Your task to perform on an android device: toggle priority inbox in the gmail app Image 0: 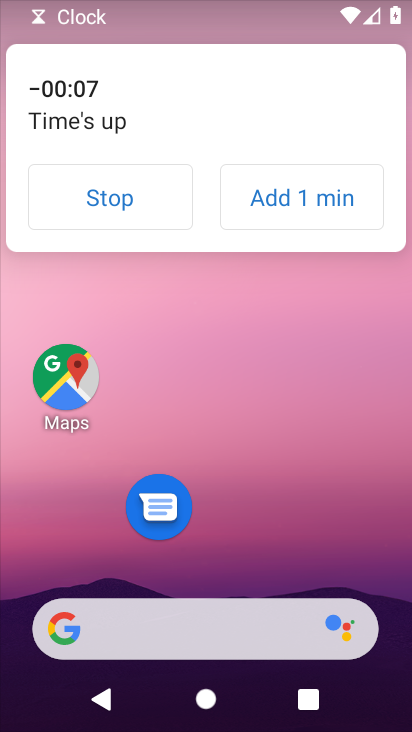
Step 0: click (148, 203)
Your task to perform on an android device: toggle priority inbox in the gmail app Image 1: 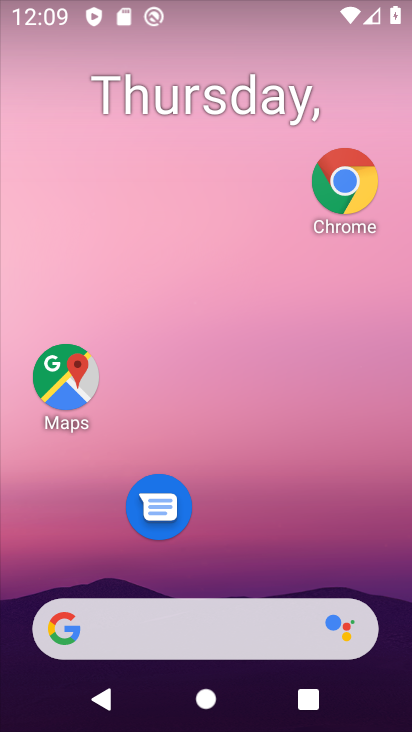
Step 1: drag from (116, 565) to (189, 200)
Your task to perform on an android device: toggle priority inbox in the gmail app Image 2: 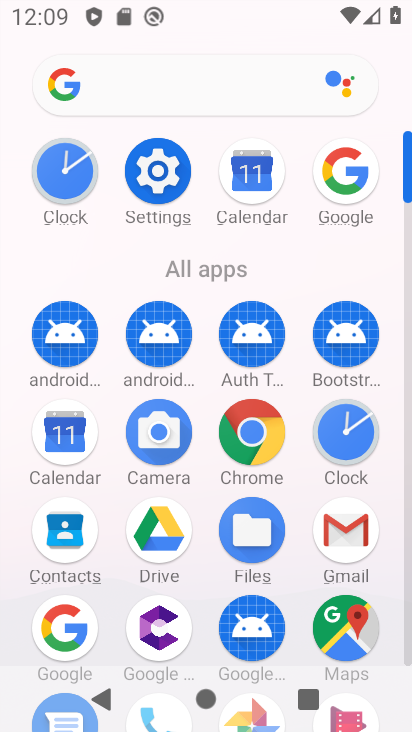
Step 2: drag from (148, 543) to (171, 364)
Your task to perform on an android device: toggle priority inbox in the gmail app Image 3: 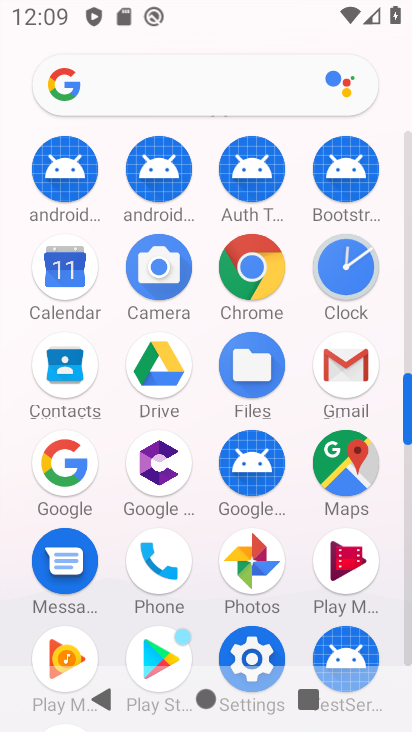
Step 3: click (357, 379)
Your task to perform on an android device: toggle priority inbox in the gmail app Image 4: 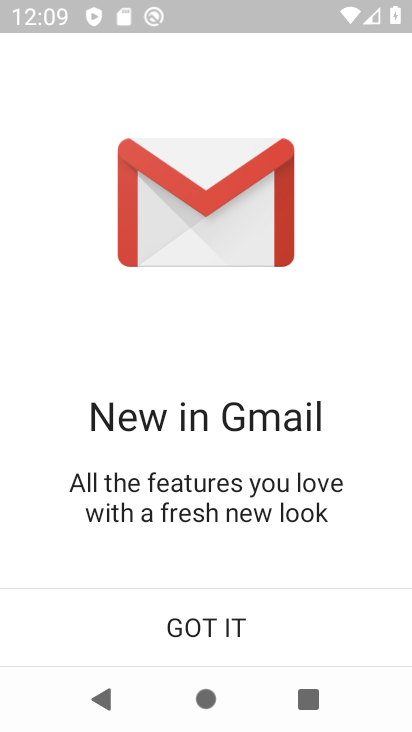
Step 4: click (357, 379)
Your task to perform on an android device: toggle priority inbox in the gmail app Image 5: 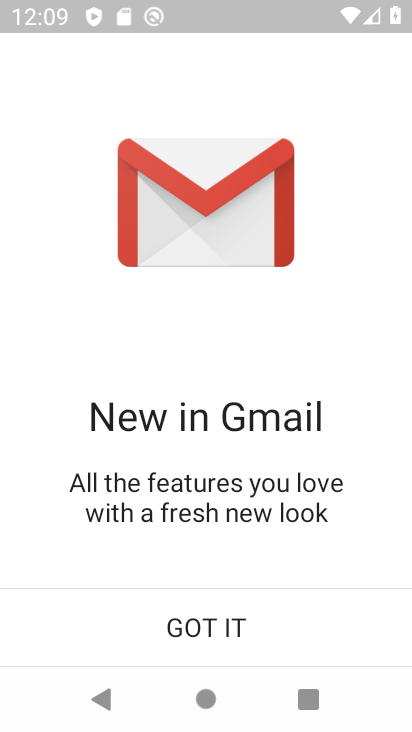
Step 5: click (216, 618)
Your task to perform on an android device: toggle priority inbox in the gmail app Image 6: 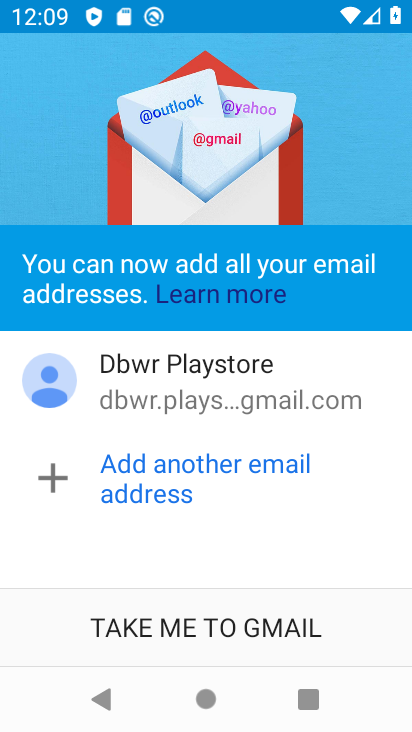
Step 6: click (218, 651)
Your task to perform on an android device: toggle priority inbox in the gmail app Image 7: 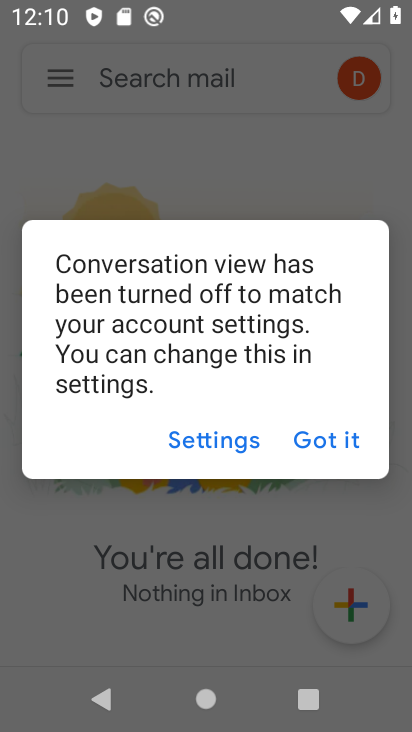
Step 7: click (333, 447)
Your task to perform on an android device: toggle priority inbox in the gmail app Image 8: 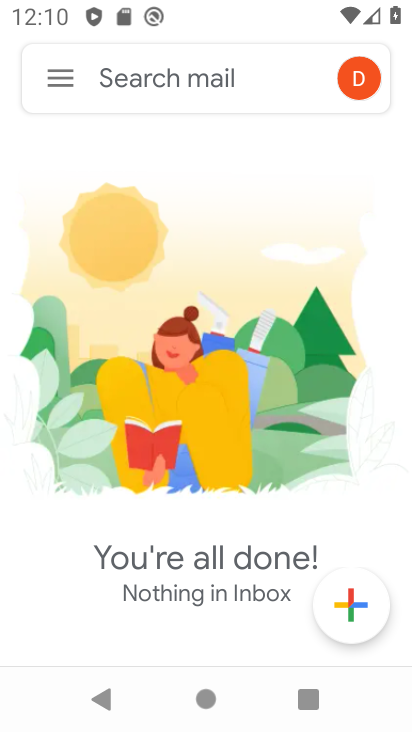
Step 8: click (63, 82)
Your task to perform on an android device: toggle priority inbox in the gmail app Image 9: 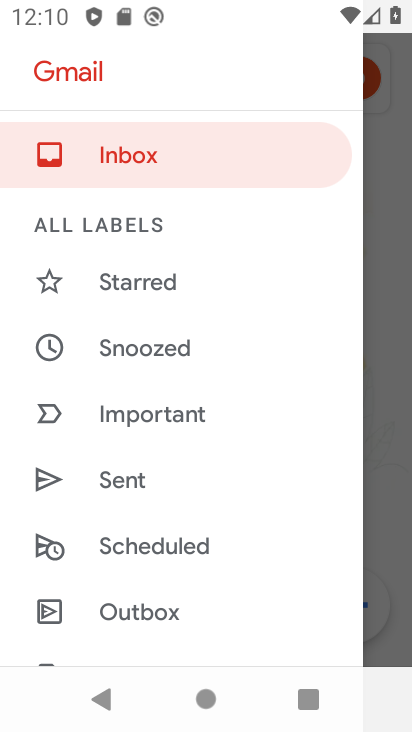
Step 9: drag from (119, 559) to (169, 213)
Your task to perform on an android device: toggle priority inbox in the gmail app Image 10: 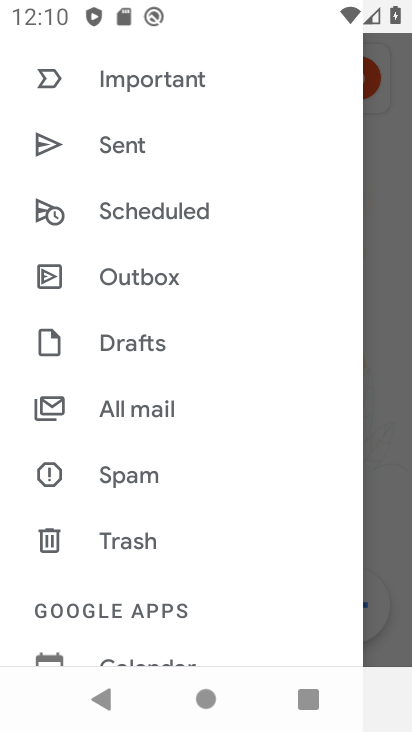
Step 10: drag from (121, 598) to (174, 308)
Your task to perform on an android device: toggle priority inbox in the gmail app Image 11: 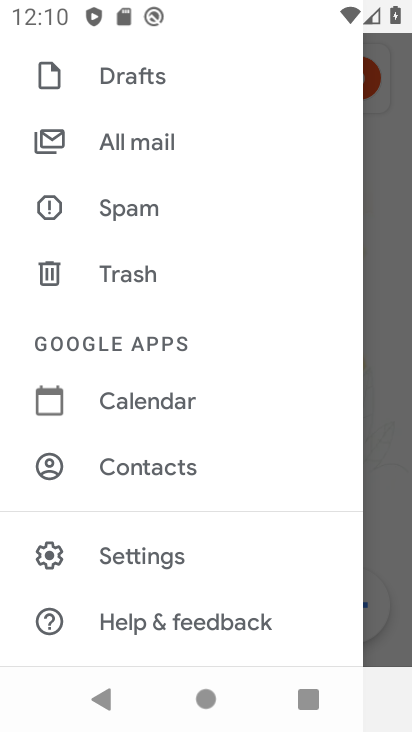
Step 11: click (132, 554)
Your task to perform on an android device: toggle priority inbox in the gmail app Image 12: 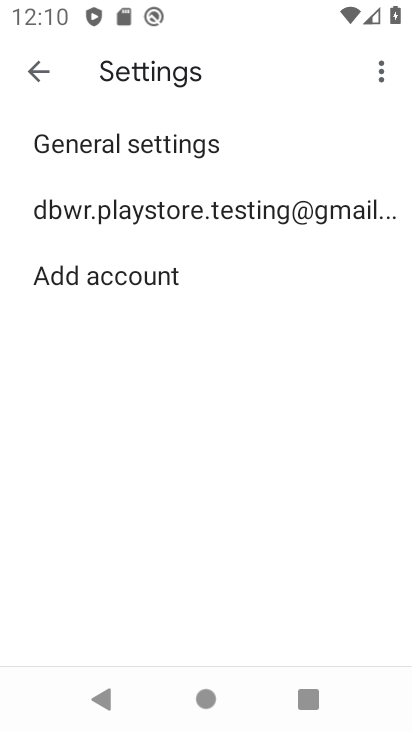
Step 12: click (200, 219)
Your task to perform on an android device: toggle priority inbox in the gmail app Image 13: 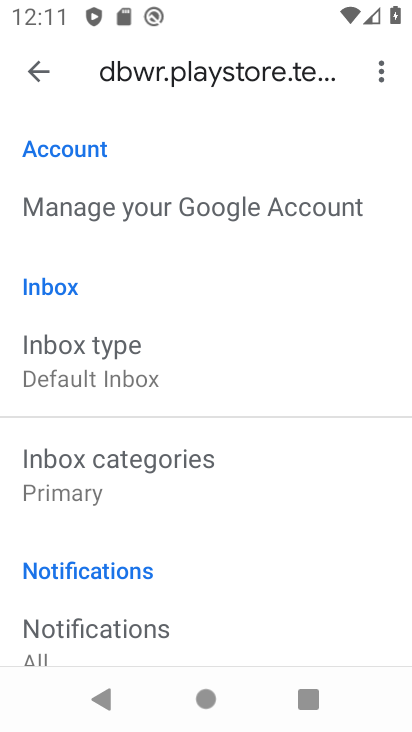
Step 13: click (132, 363)
Your task to perform on an android device: toggle priority inbox in the gmail app Image 14: 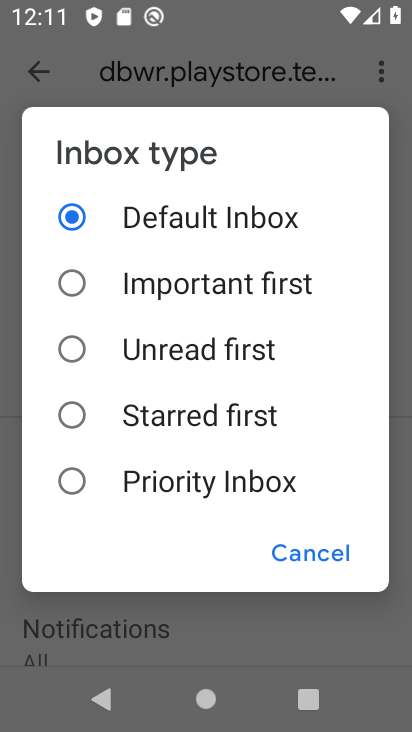
Step 14: click (196, 485)
Your task to perform on an android device: toggle priority inbox in the gmail app Image 15: 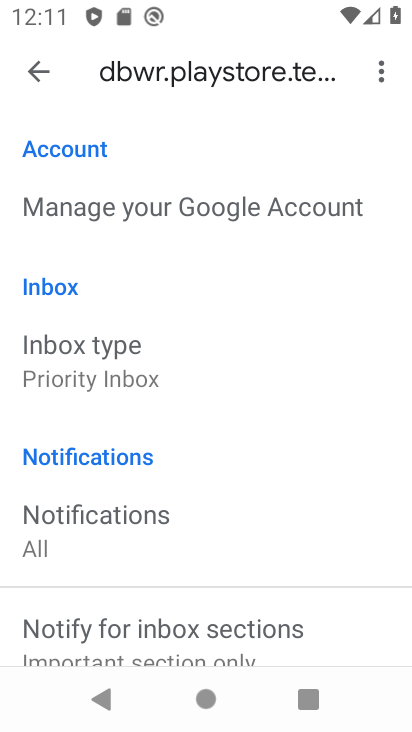
Step 15: task complete